Your task to perform on an android device: Go to Reddit.com Image 0: 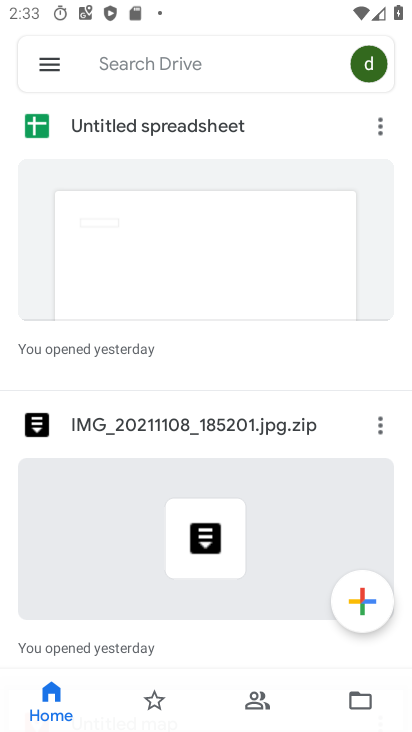
Step 0: press back button
Your task to perform on an android device: Go to Reddit.com Image 1: 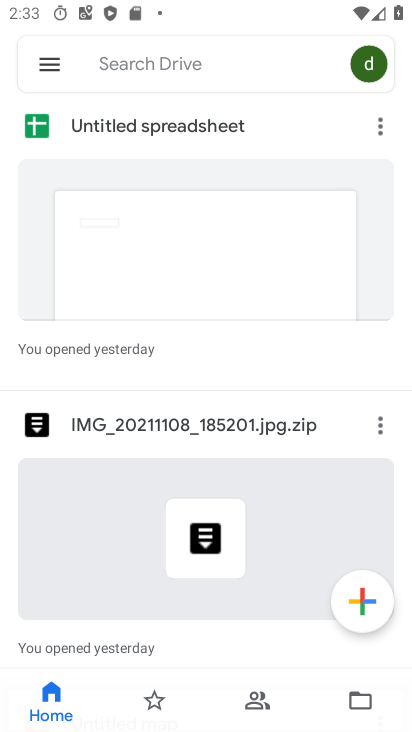
Step 1: press back button
Your task to perform on an android device: Go to Reddit.com Image 2: 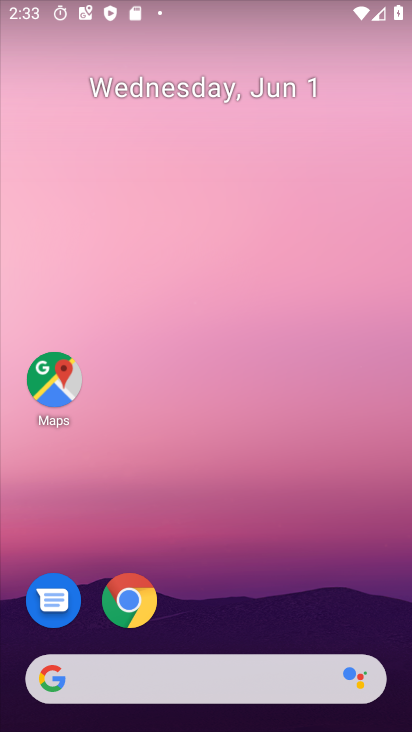
Step 2: drag from (270, 325) to (267, 109)
Your task to perform on an android device: Go to Reddit.com Image 3: 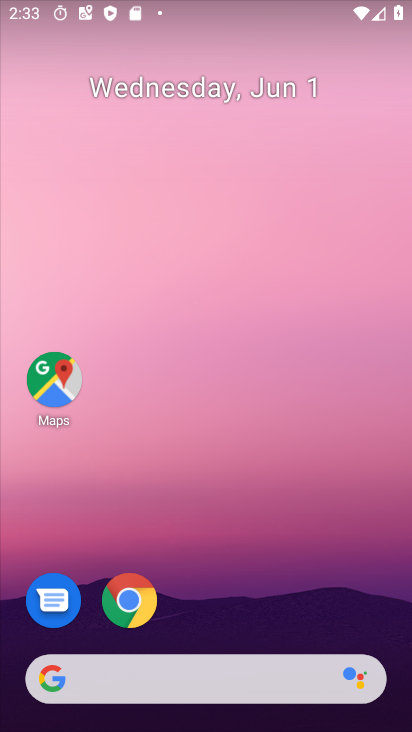
Step 3: drag from (237, 705) to (170, 331)
Your task to perform on an android device: Go to Reddit.com Image 4: 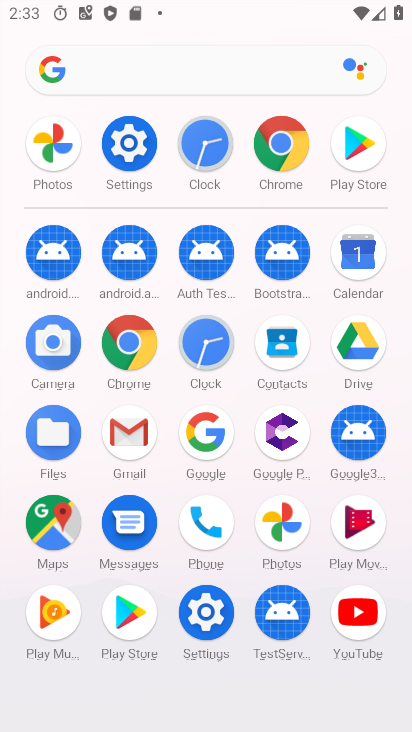
Step 4: click (291, 153)
Your task to perform on an android device: Go to Reddit.com Image 5: 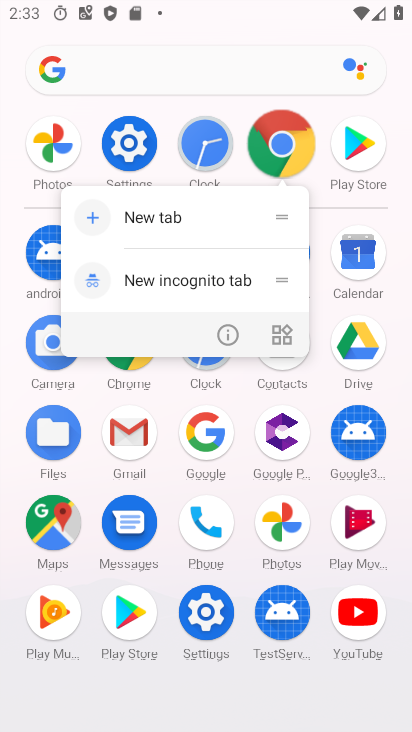
Step 5: click (290, 152)
Your task to perform on an android device: Go to Reddit.com Image 6: 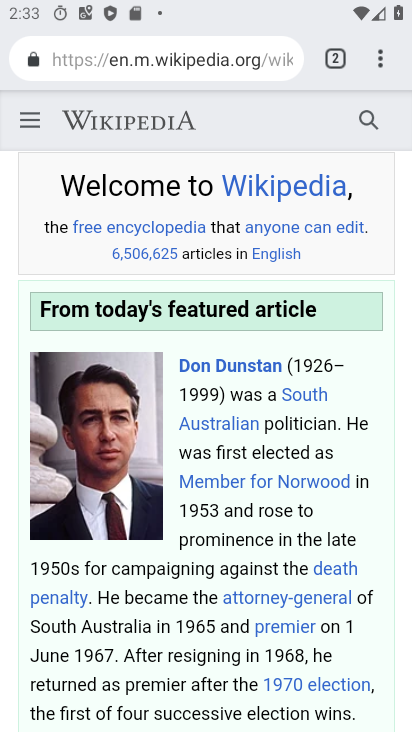
Step 6: drag from (373, 58) to (159, 181)
Your task to perform on an android device: Go to Reddit.com Image 7: 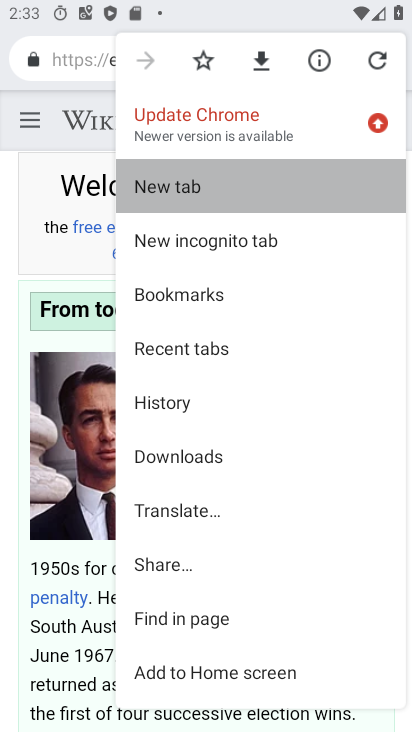
Step 7: click (140, 185)
Your task to perform on an android device: Go to Reddit.com Image 8: 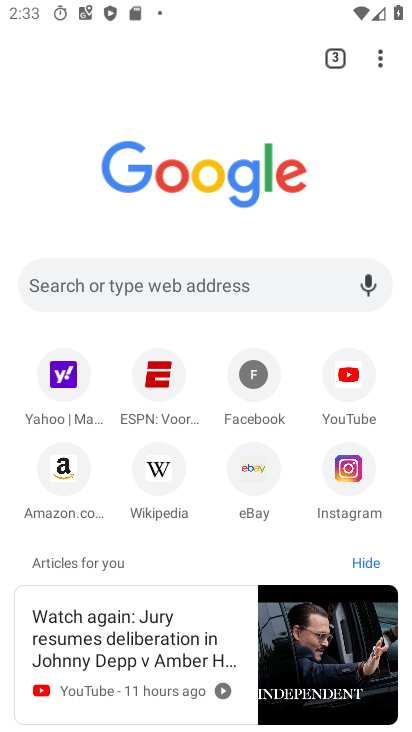
Step 8: click (82, 276)
Your task to perform on an android device: Go to Reddit.com Image 9: 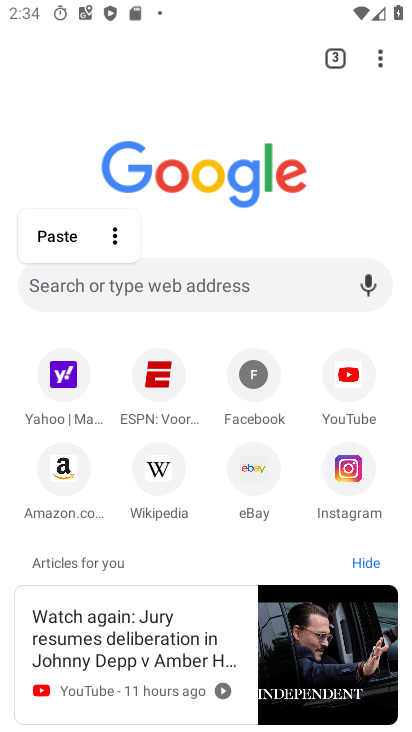
Step 9: type "reddit.com"
Your task to perform on an android device: Go to Reddit.com Image 10: 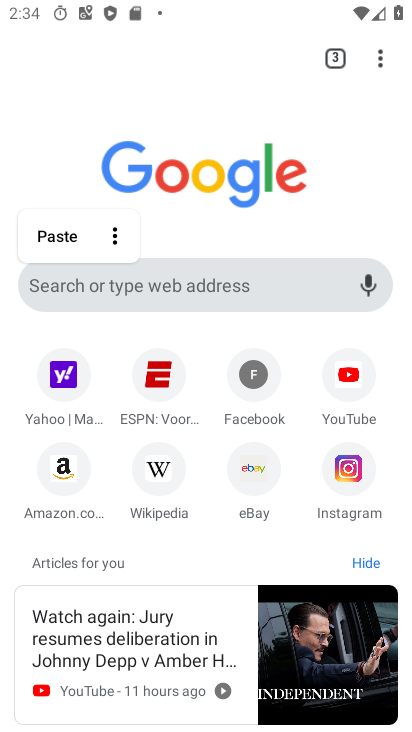
Step 10: task complete